Your task to perform on an android device: open sync settings in chrome Image 0: 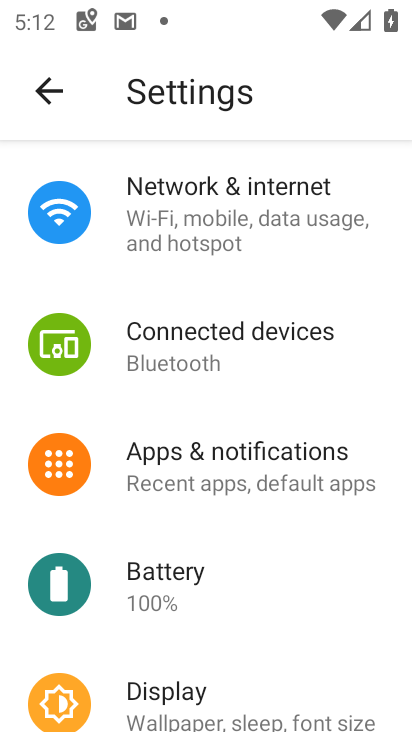
Step 0: press home button
Your task to perform on an android device: open sync settings in chrome Image 1: 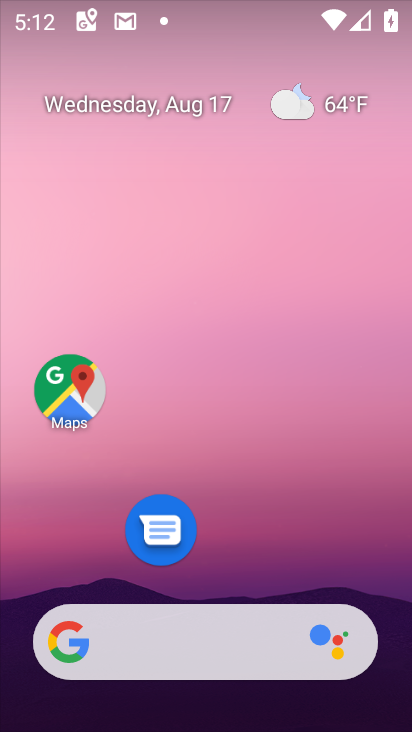
Step 1: drag from (195, 556) to (236, 104)
Your task to perform on an android device: open sync settings in chrome Image 2: 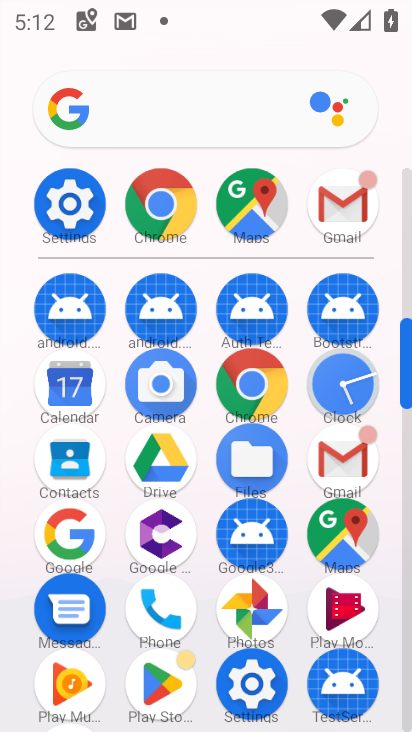
Step 2: click (247, 383)
Your task to perform on an android device: open sync settings in chrome Image 3: 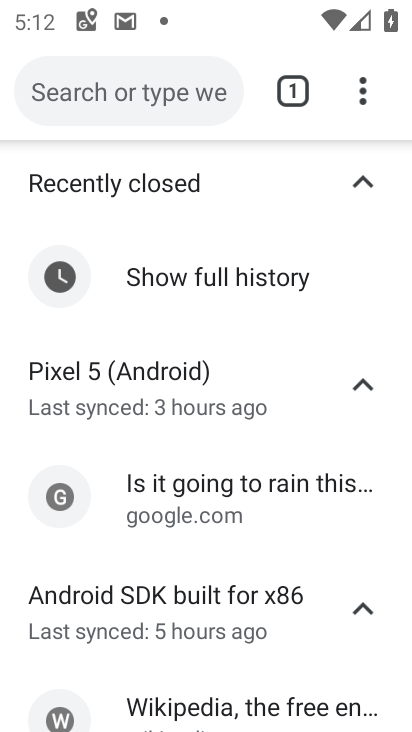
Step 3: click (358, 94)
Your task to perform on an android device: open sync settings in chrome Image 4: 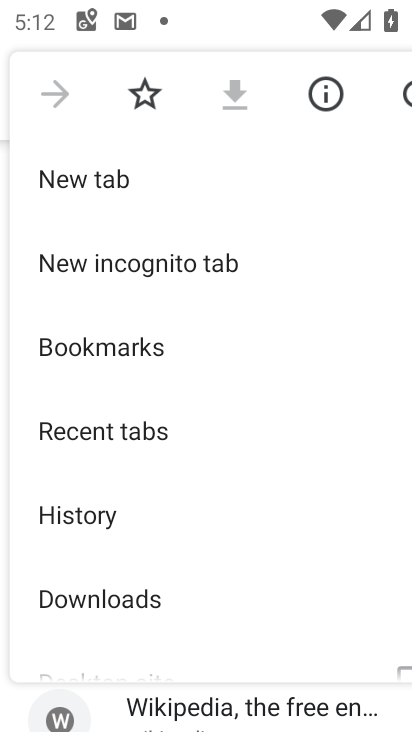
Step 4: drag from (138, 563) to (115, 346)
Your task to perform on an android device: open sync settings in chrome Image 5: 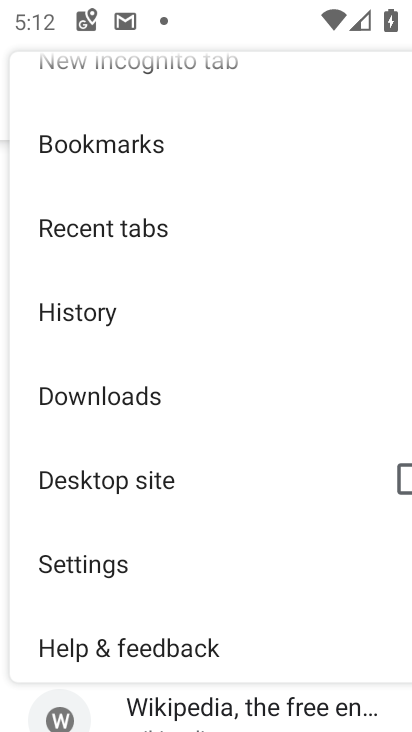
Step 5: click (74, 560)
Your task to perform on an android device: open sync settings in chrome Image 6: 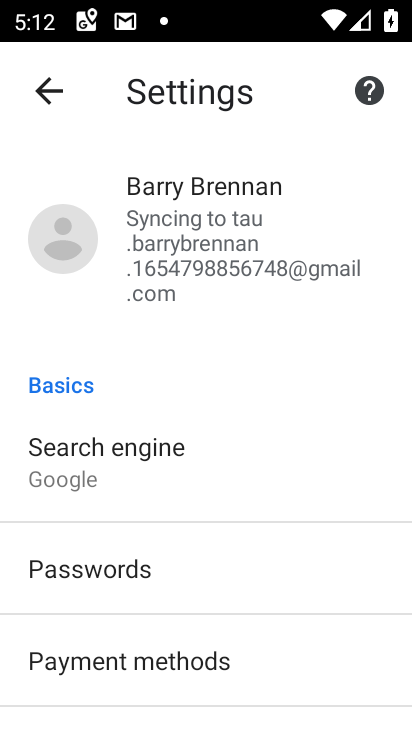
Step 6: click (220, 247)
Your task to perform on an android device: open sync settings in chrome Image 7: 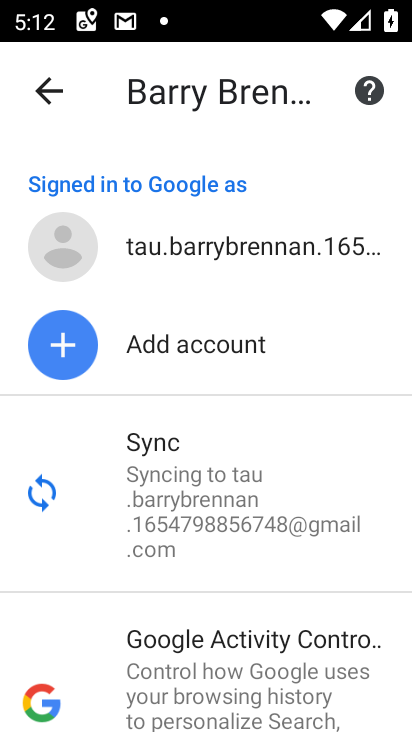
Step 7: click (159, 474)
Your task to perform on an android device: open sync settings in chrome Image 8: 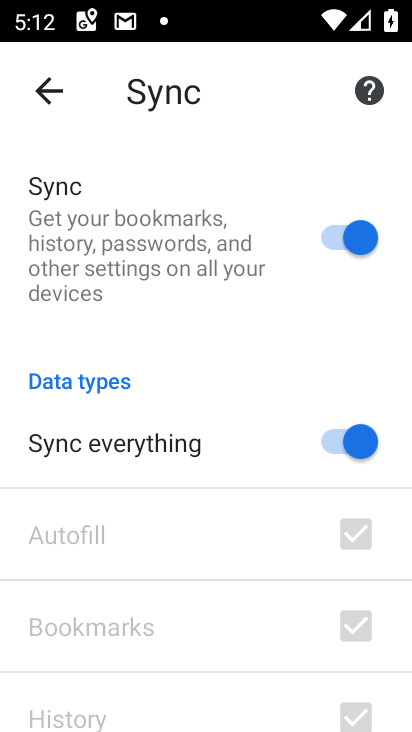
Step 8: task complete